Your task to perform on an android device: turn off picture-in-picture Image 0: 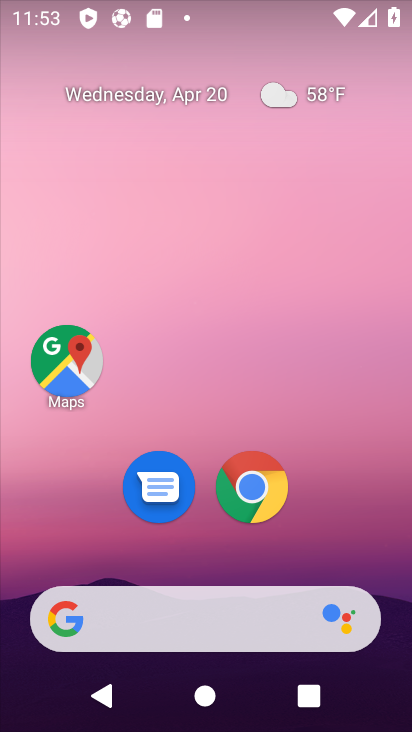
Step 0: click (256, 497)
Your task to perform on an android device: turn off picture-in-picture Image 1: 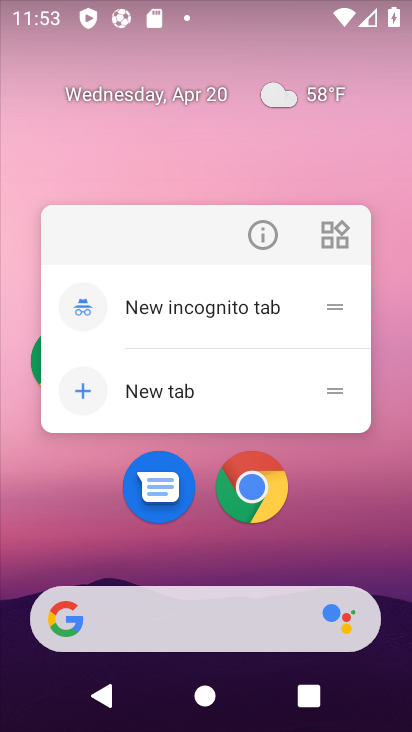
Step 1: click (253, 238)
Your task to perform on an android device: turn off picture-in-picture Image 2: 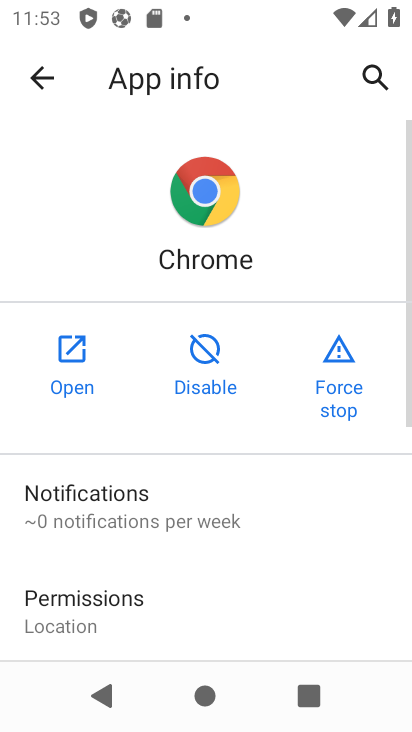
Step 2: drag from (245, 470) to (218, 171)
Your task to perform on an android device: turn off picture-in-picture Image 3: 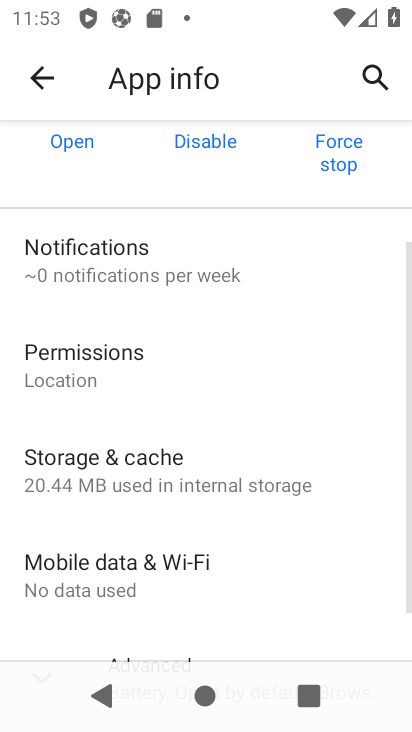
Step 3: drag from (210, 536) to (220, 115)
Your task to perform on an android device: turn off picture-in-picture Image 4: 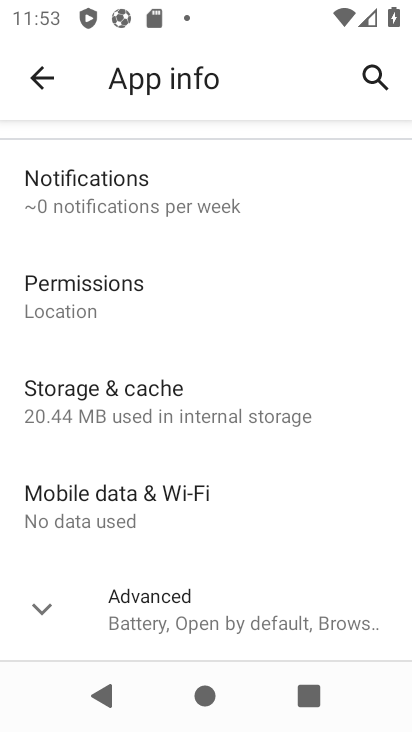
Step 4: drag from (220, 537) to (168, 167)
Your task to perform on an android device: turn off picture-in-picture Image 5: 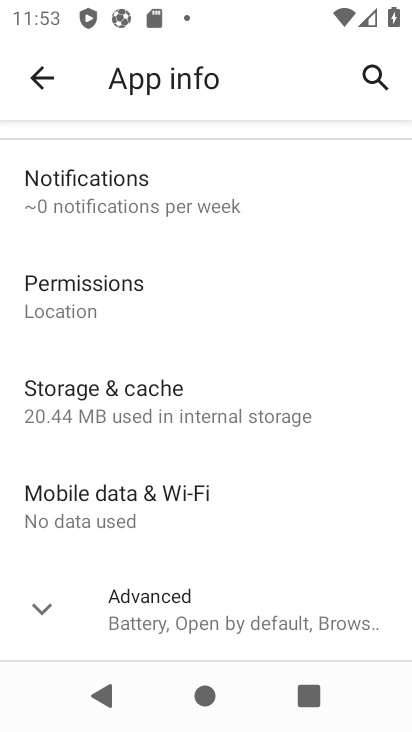
Step 5: click (44, 615)
Your task to perform on an android device: turn off picture-in-picture Image 6: 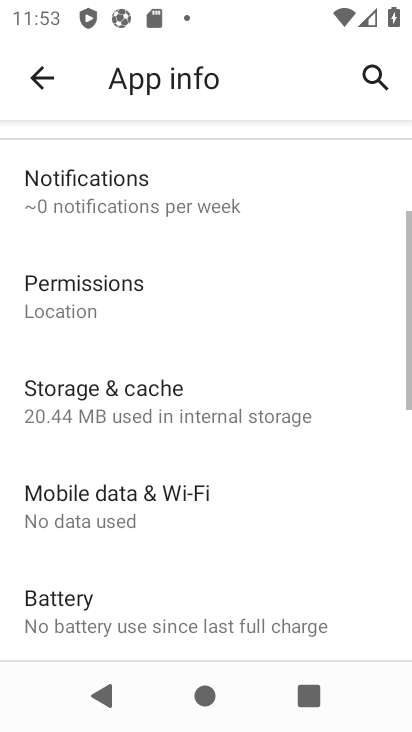
Step 6: drag from (207, 608) to (169, 223)
Your task to perform on an android device: turn off picture-in-picture Image 7: 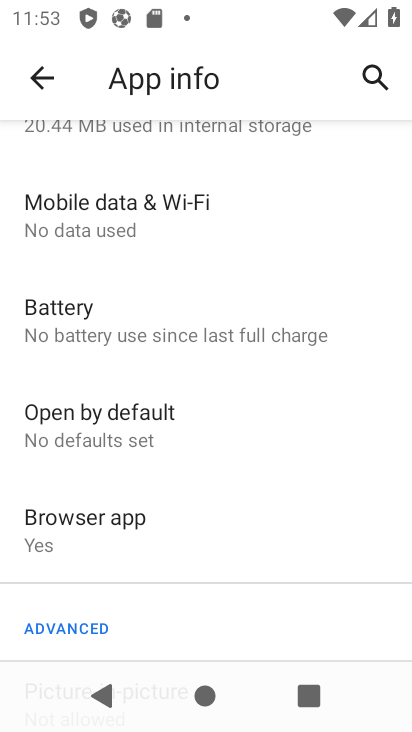
Step 7: drag from (180, 481) to (170, 112)
Your task to perform on an android device: turn off picture-in-picture Image 8: 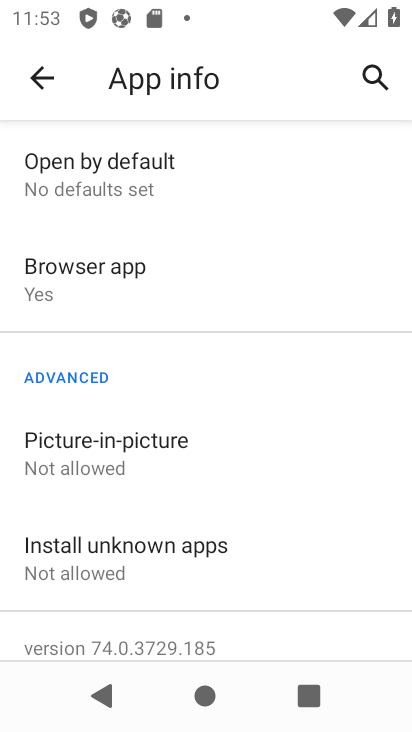
Step 8: click (88, 467)
Your task to perform on an android device: turn off picture-in-picture Image 9: 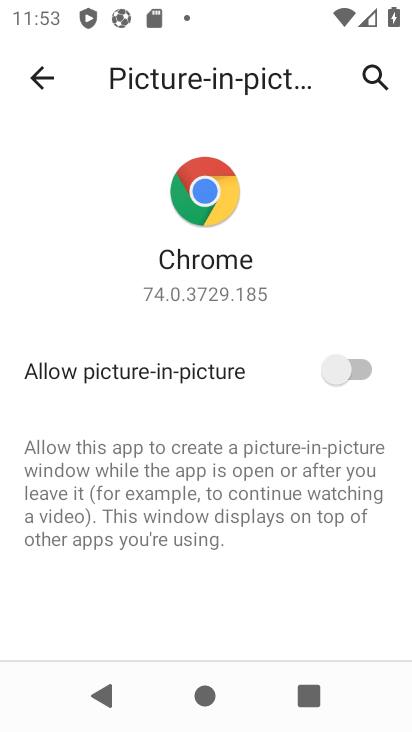
Step 9: task complete